Your task to perform on an android device: turn on translation in the chrome app Image 0: 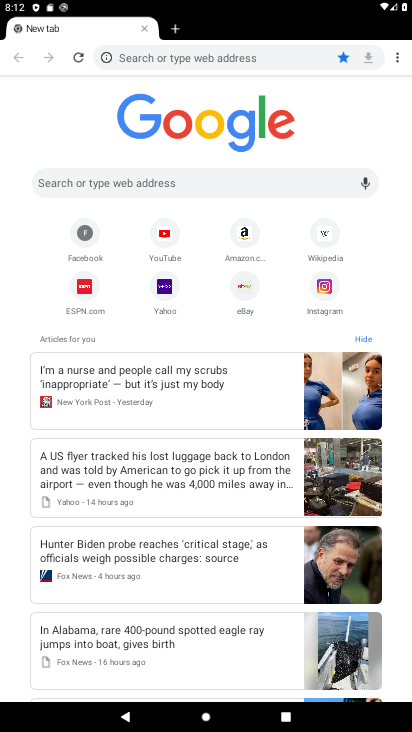
Step 0: click (401, 53)
Your task to perform on an android device: turn on translation in the chrome app Image 1: 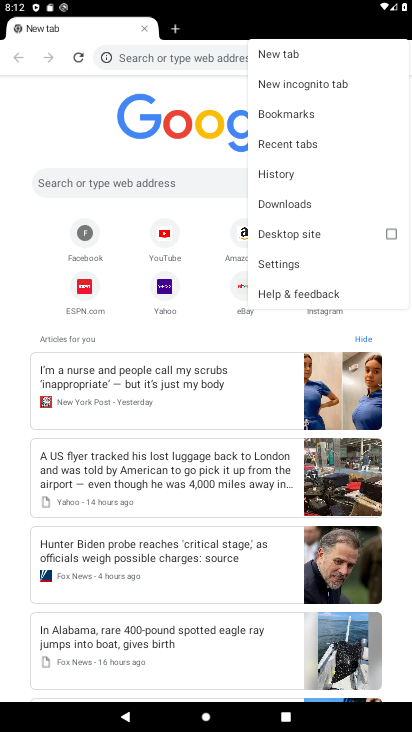
Step 1: click (295, 263)
Your task to perform on an android device: turn on translation in the chrome app Image 2: 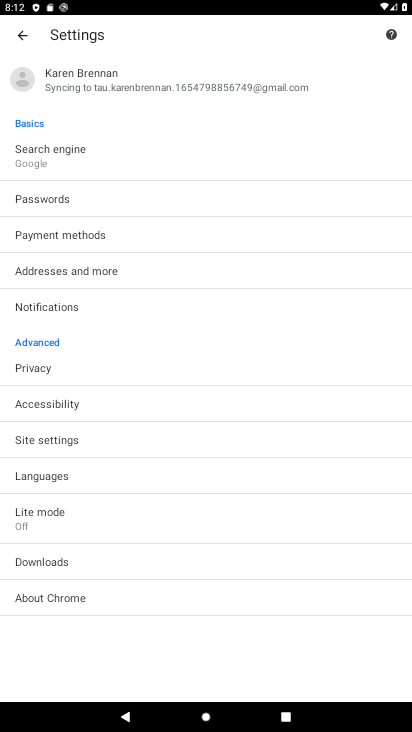
Step 2: click (13, 469)
Your task to perform on an android device: turn on translation in the chrome app Image 3: 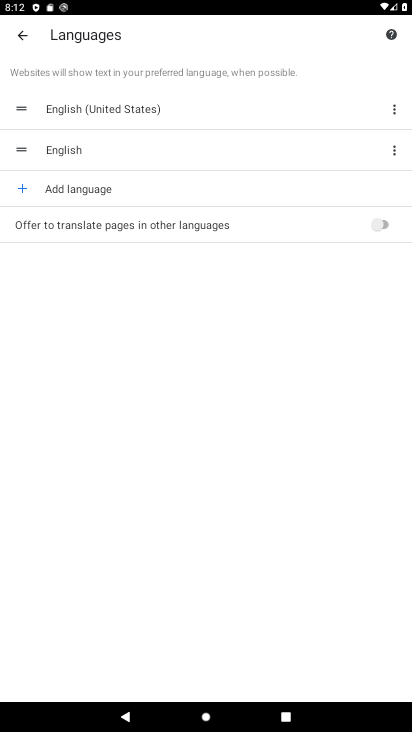
Step 3: click (384, 224)
Your task to perform on an android device: turn on translation in the chrome app Image 4: 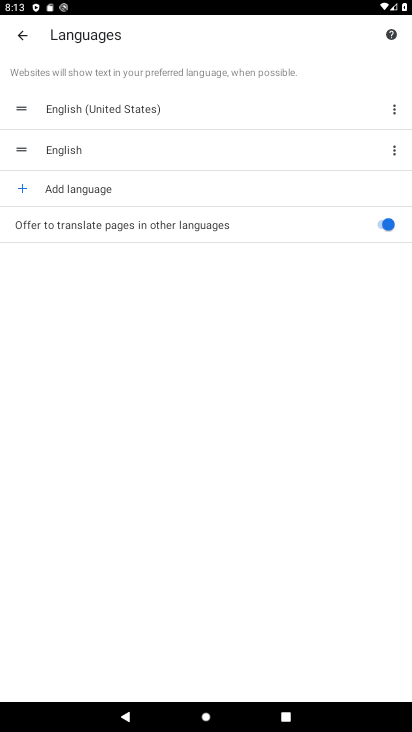
Step 4: task complete